Your task to perform on an android device: change the clock style Image 0: 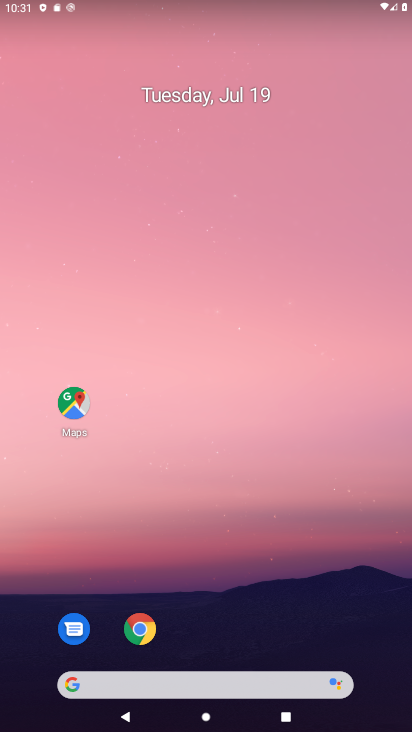
Step 0: drag from (262, 488) to (249, 325)
Your task to perform on an android device: change the clock style Image 1: 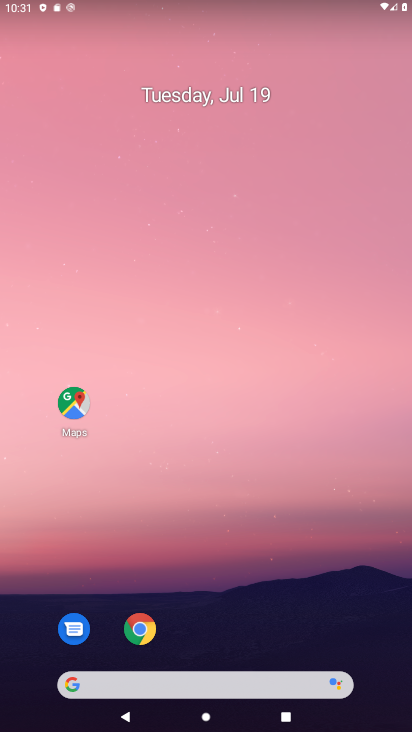
Step 1: drag from (242, 709) to (161, 157)
Your task to perform on an android device: change the clock style Image 2: 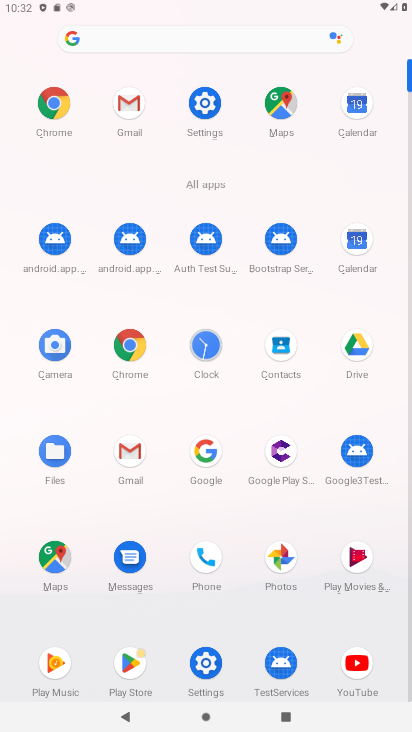
Step 2: click (192, 358)
Your task to perform on an android device: change the clock style Image 3: 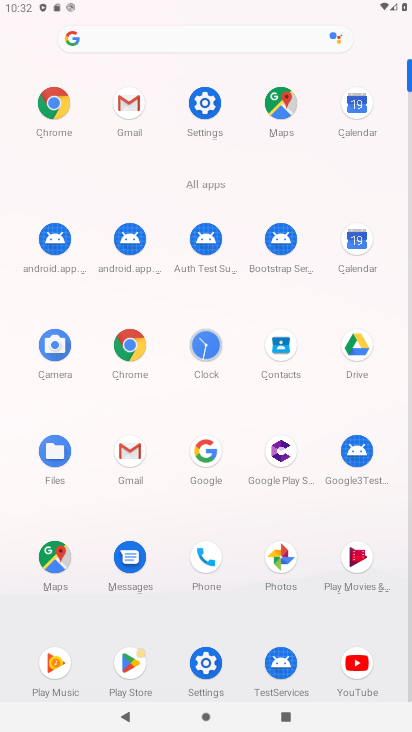
Step 3: click (195, 357)
Your task to perform on an android device: change the clock style Image 4: 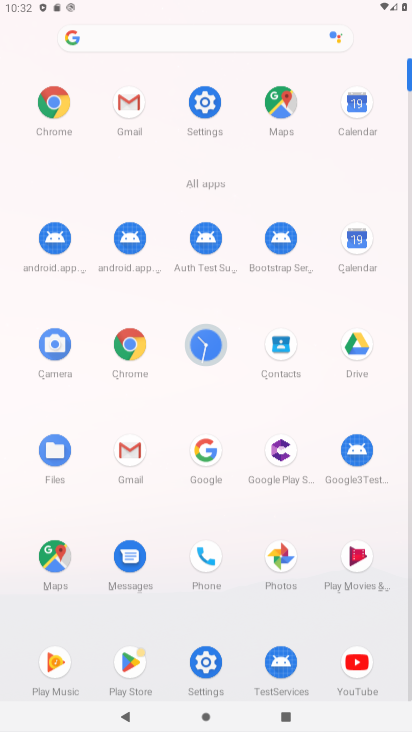
Step 4: click (196, 356)
Your task to perform on an android device: change the clock style Image 5: 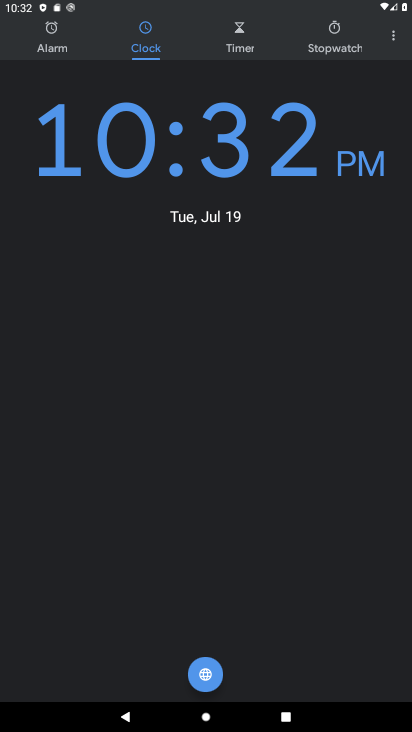
Step 5: click (201, 357)
Your task to perform on an android device: change the clock style Image 6: 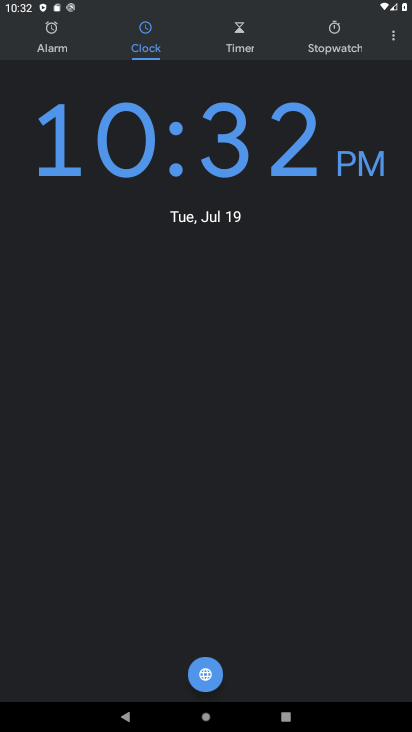
Step 6: click (398, 33)
Your task to perform on an android device: change the clock style Image 7: 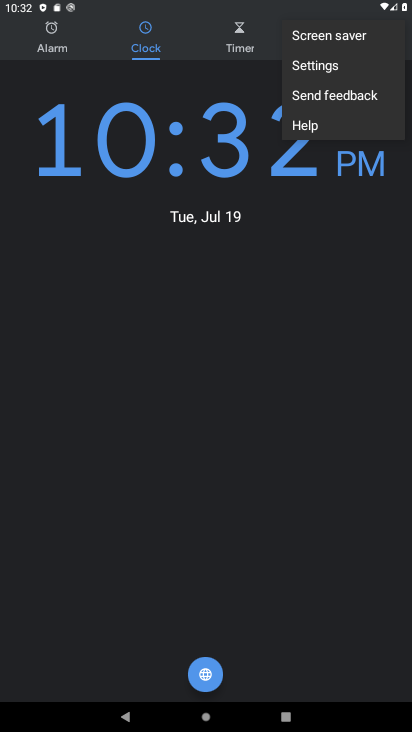
Step 7: click (324, 68)
Your task to perform on an android device: change the clock style Image 8: 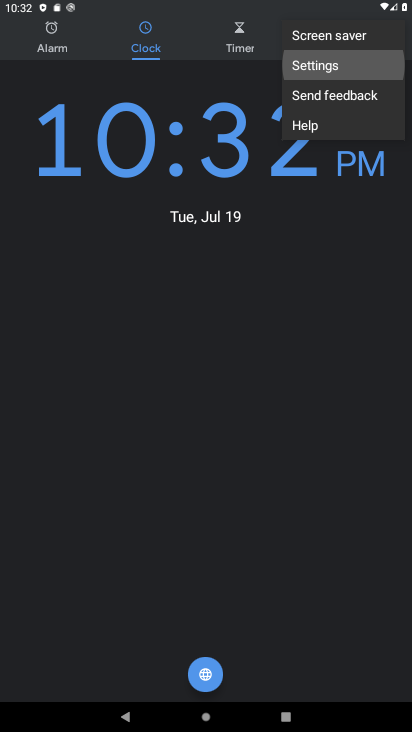
Step 8: click (323, 68)
Your task to perform on an android device: change the clock style Image 9: 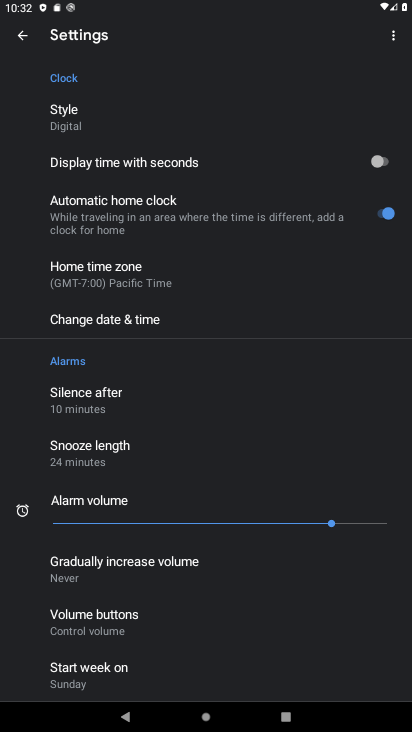
Step 9: click (89, 118)
Your task to perform on an android device: change the clock style Image 10: 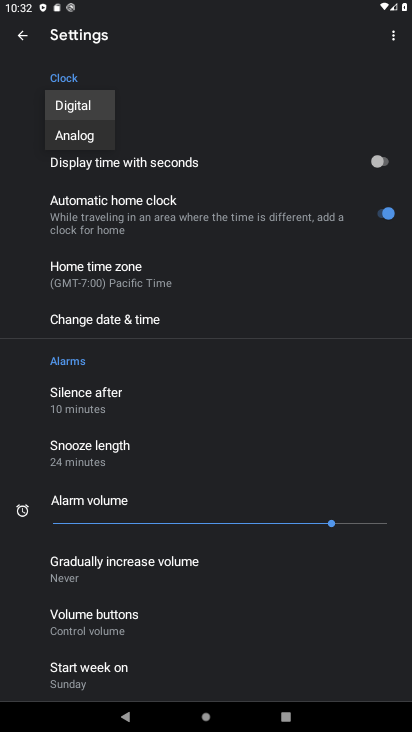
Step 10: click (79, 136)
Your task to perform on an android device: change the clock style Image 11: 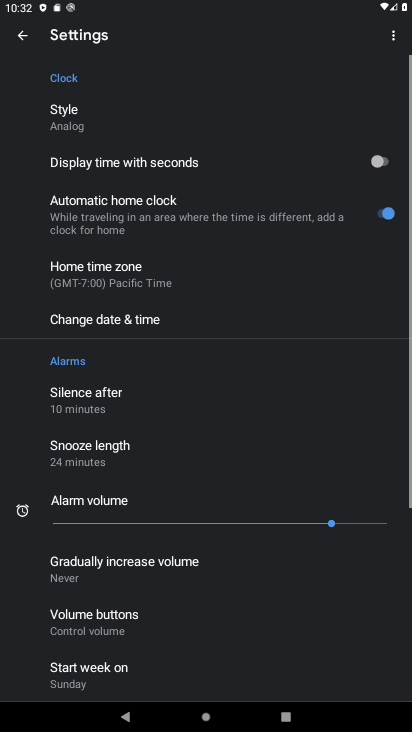
Step 11: task complete